Your task to perform on an android device: star an email in the gmail app Image 0: 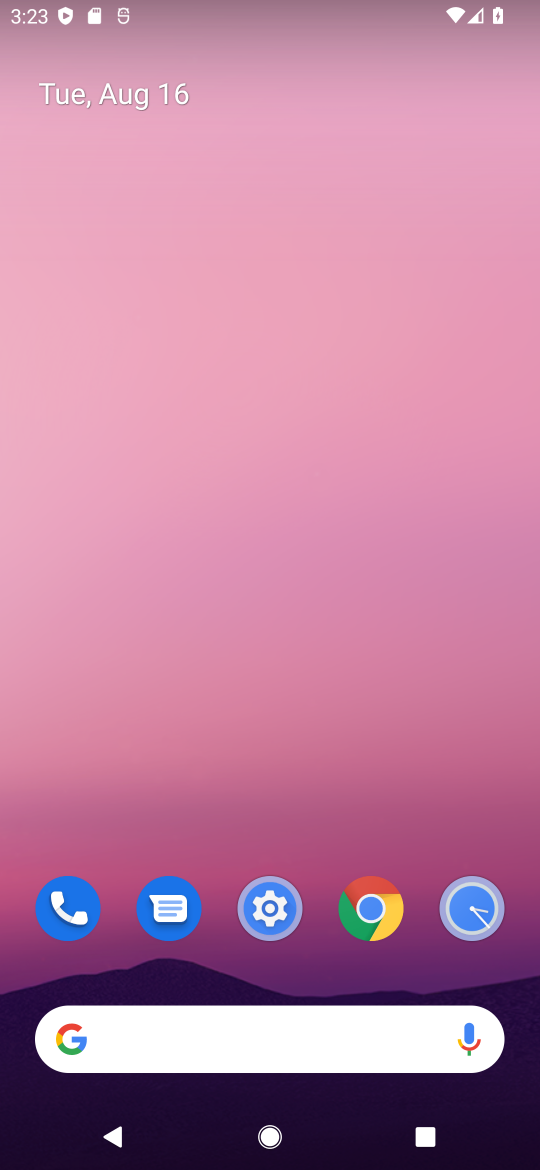
Step 0: press home button
Your task to perform on an android device: star an email in the gmail app Image 1: 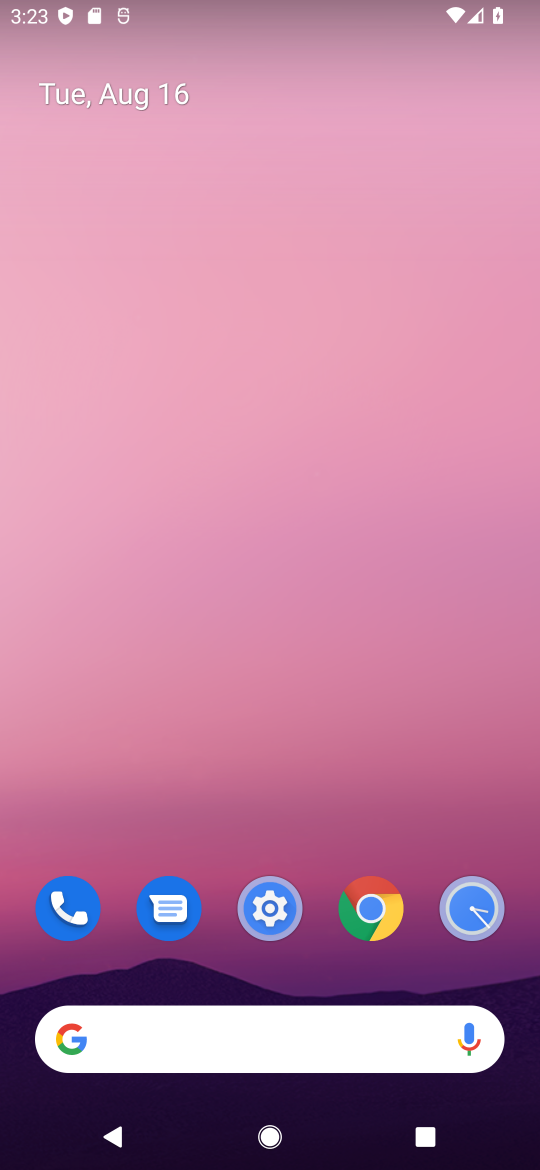
Step 1: drag from (310, 860) to (300, 109)
Your task to perform on an android device: star an email in the gmail app Image 2: 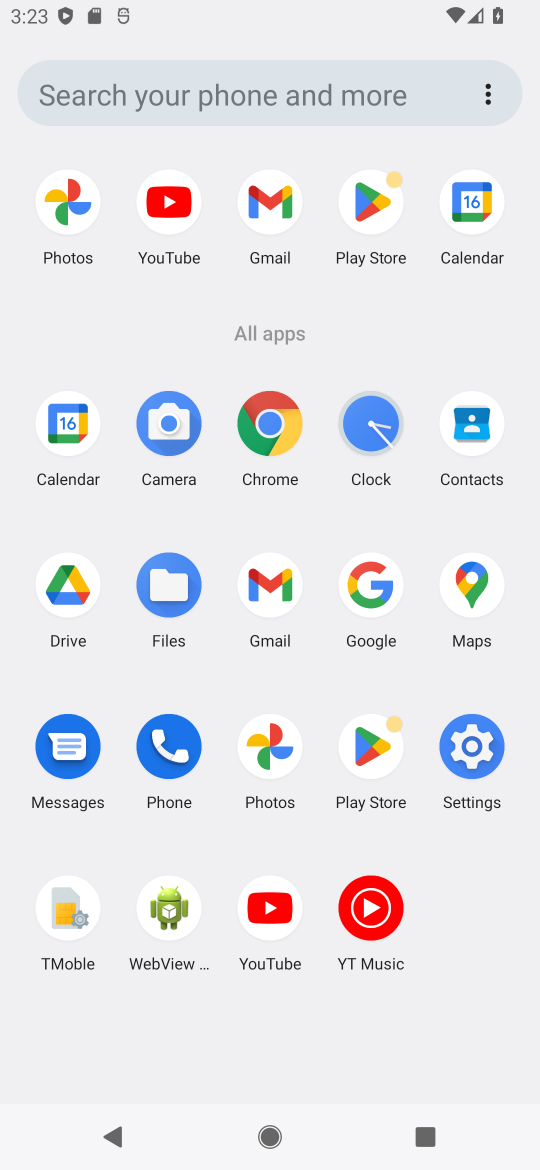
Step 2: click (268, 575)
Your task to perform on an android device: star an email in the gmail app Image 3: 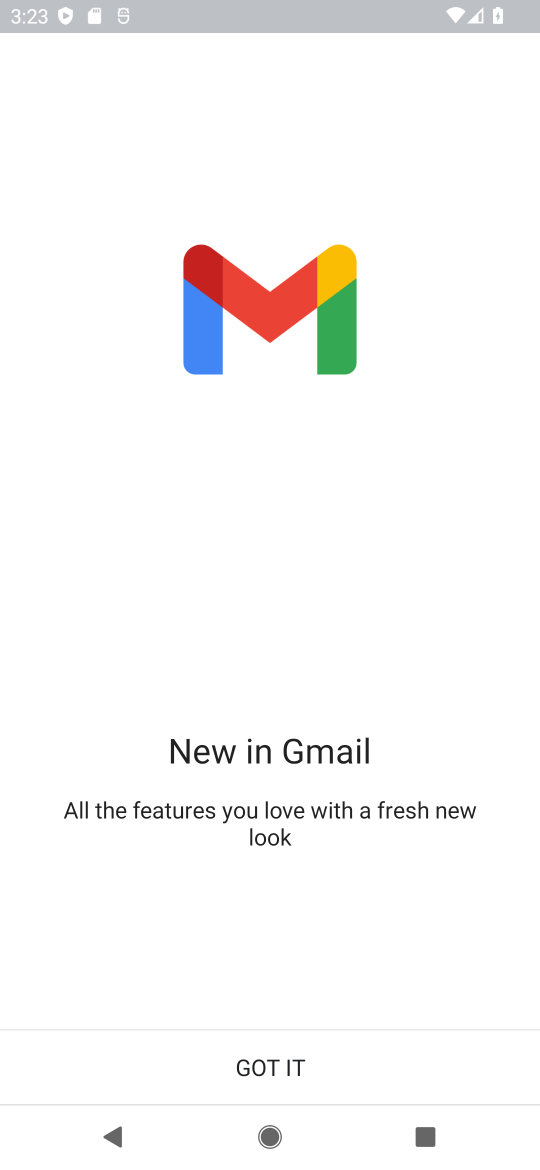
Step 3: click (269, 1069)
Your task to perform on an android device: star an email in the gmail app Image 4: 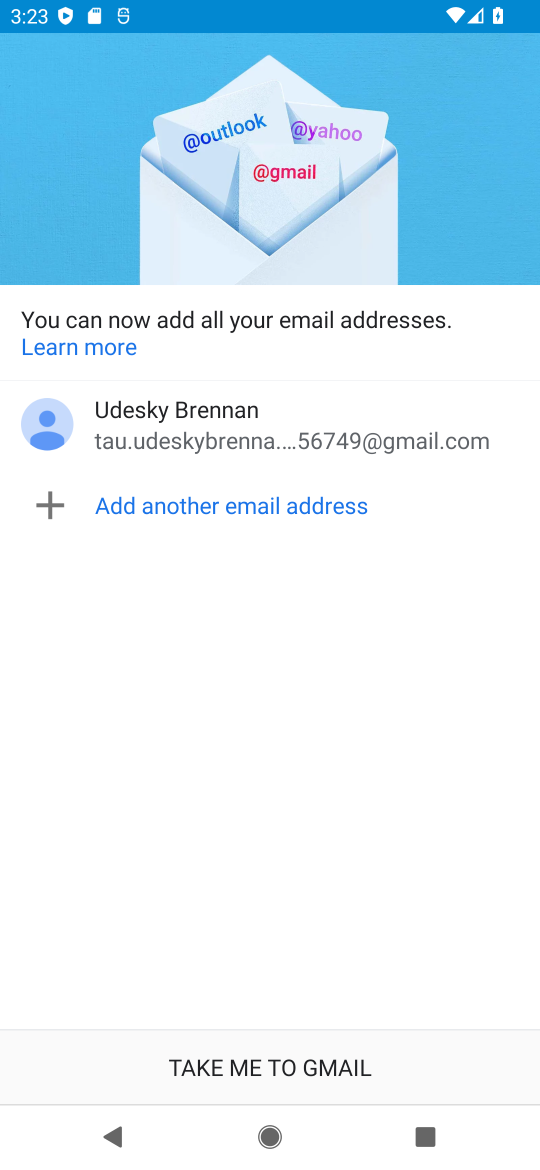
Step 4: click (261, 1060)
Your task to perform on an android device: star an email in the gmail app Image 5: 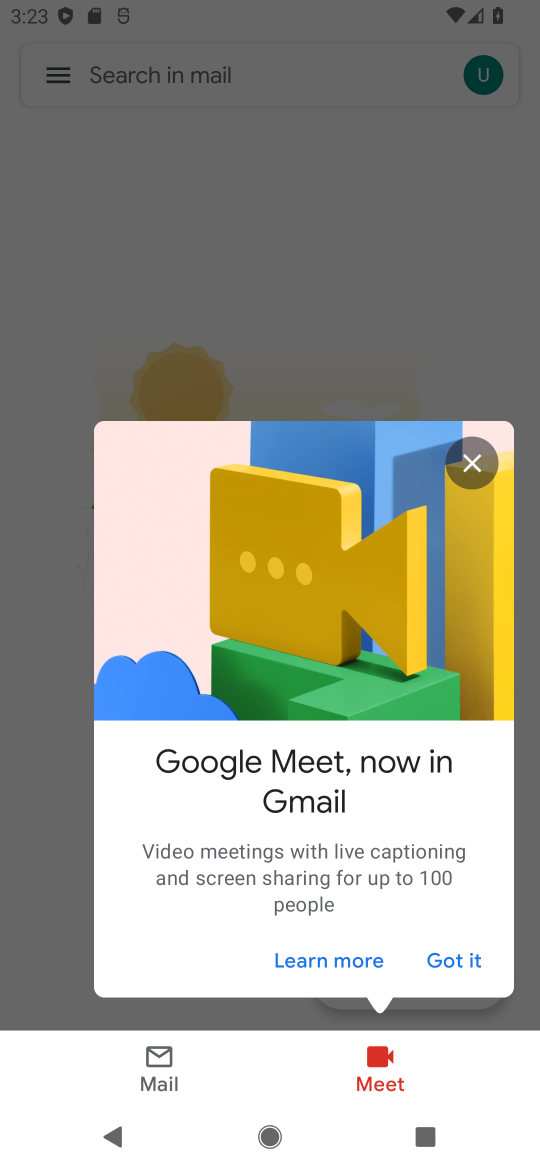
Step 5: click (463, 963)
Your task to perform on an android device: star an email in the gmail app Image 6: 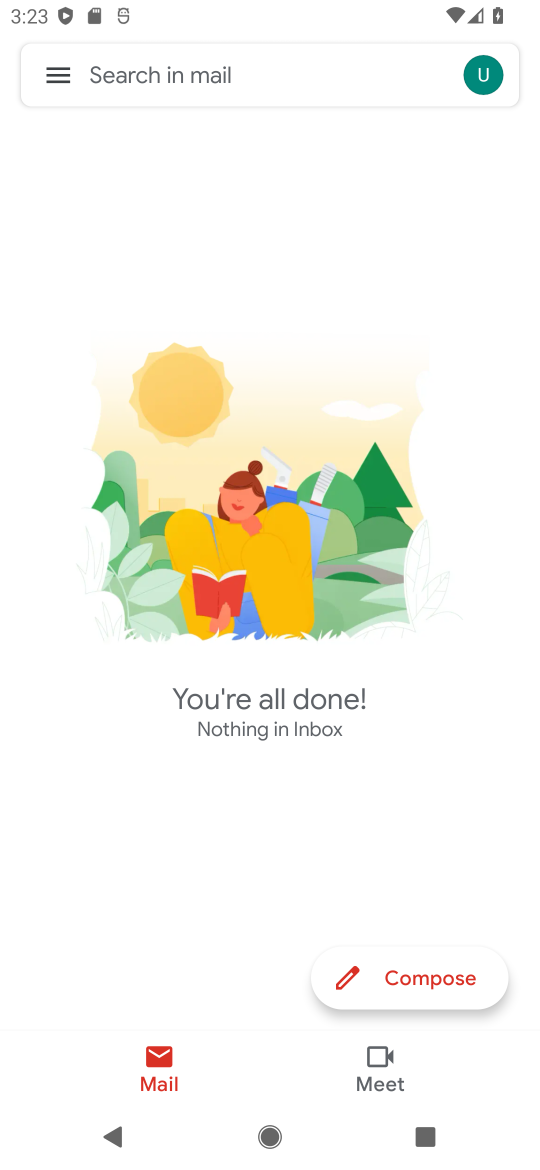
Step 6: task complete